Your task to perform on an android device: toggle notifications settings in the gmail app Image 0: 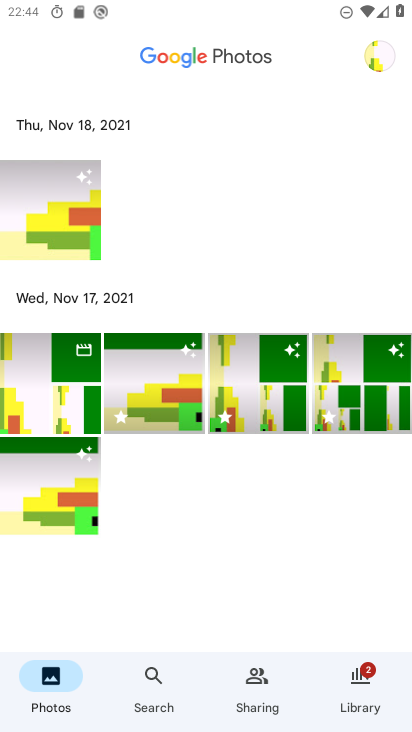
Step 0: press home button
Your task to perform on an android device: toggle notifications settings in the gmail app Image 1: 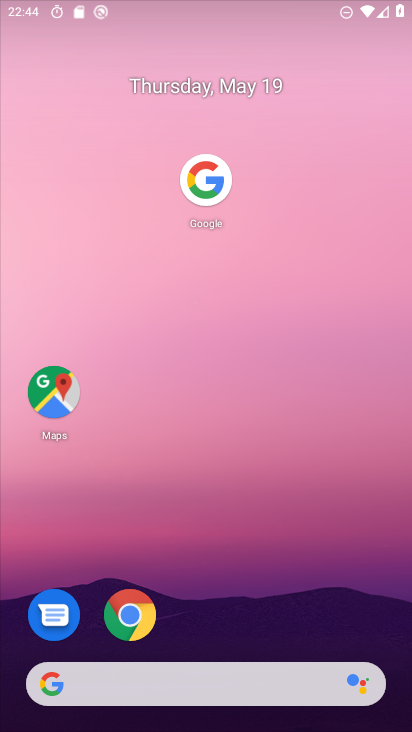
Step 1: drag from (229, 607) to (240, 73)
Your task to perform on an android device: toggle notifications settings in the gmail app Image 2: 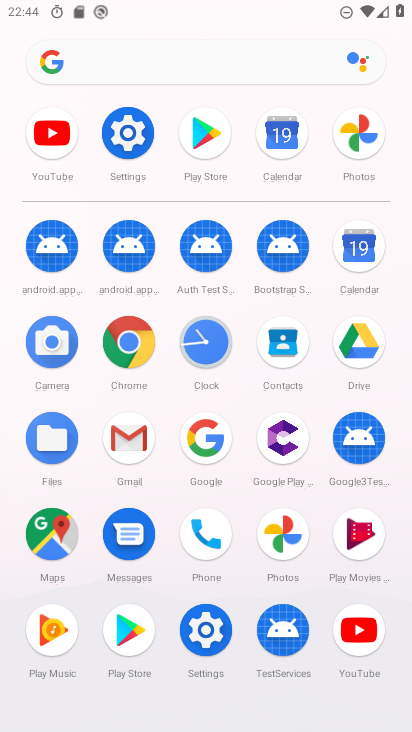
Step 2: click (136, 438)
Your task to perform on an android device: toggle notifications settings in the gmail app Image 3: 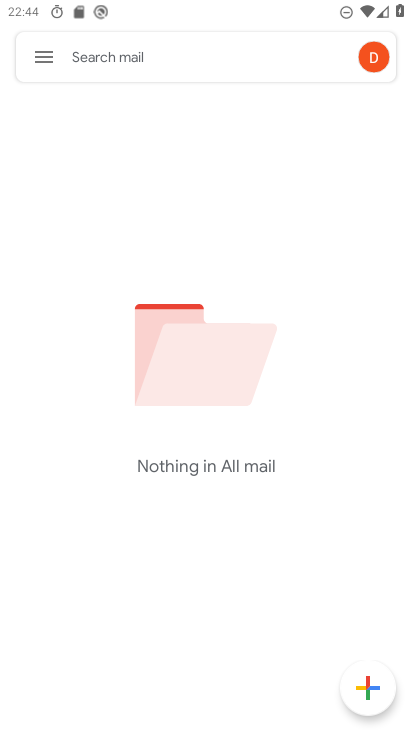
Step 3: click (39, 63)
Your task to perform on an android device: toggle notifications settings in the gmail app Image 4: 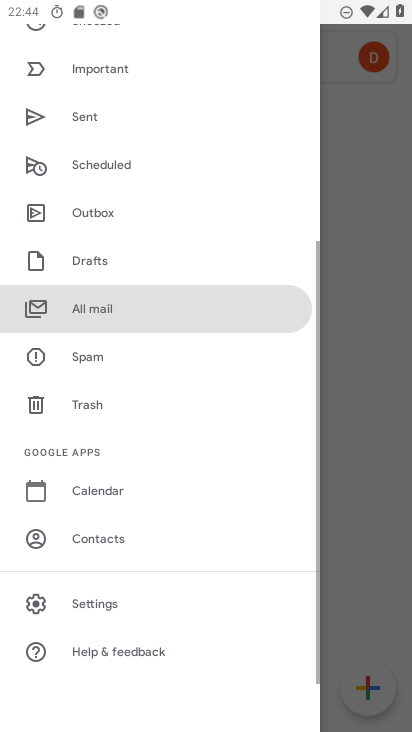
Step 4: drag from (158, 573) to (166, 263)
Your task to perform on an android device: toggle notifications settings in the gmail app Image 5: 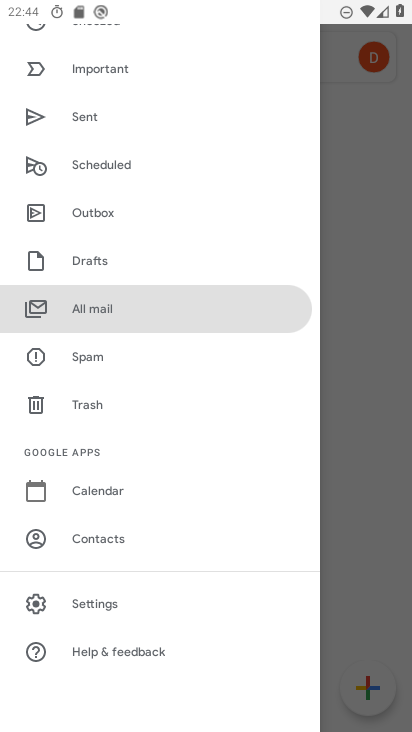
Step 5: click (125, 596)
Your task to perform on an android device: toggle notifications settings in the gmail app Image 6: 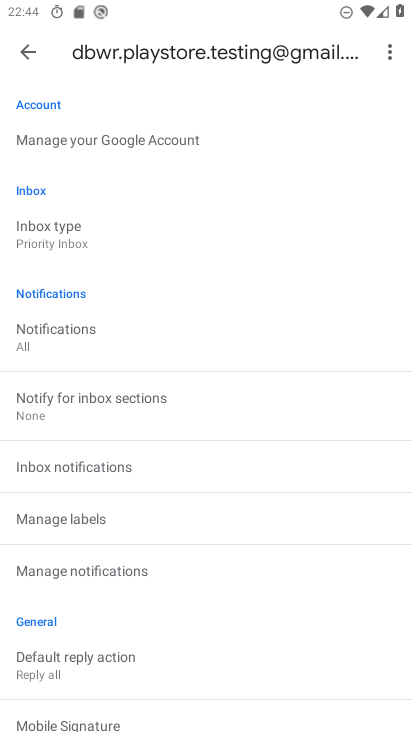
Step 6: click (69, 350)
Your task to perform on an android device: toggle notifications settings in the gmail app Image 7: 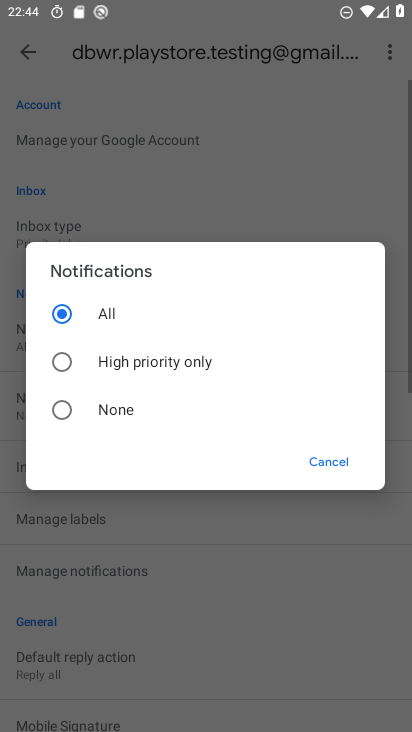
Step 7: click (94, 411)
Your task to perform on an android device: toggle notifications settings in the gmail app Image 8: 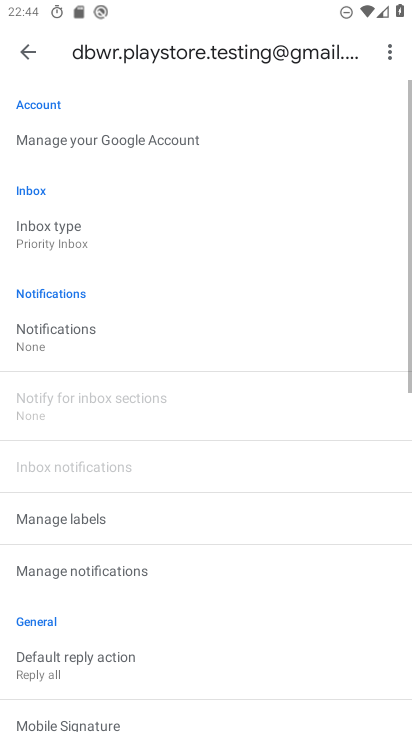
Step 8: task complete